Your task to perform on an android device: toggle javascript in the chrome app Image 0: 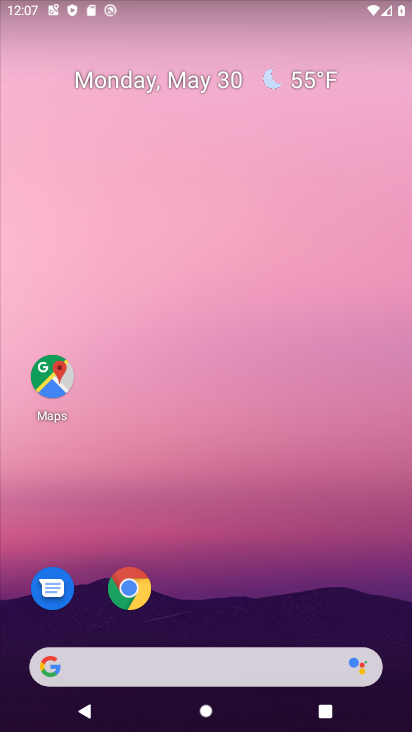
Step 0: drag from (373, 552) to (360, 130)
Your task to perform on an android device: toggle javascript in the chrome app Image 1: 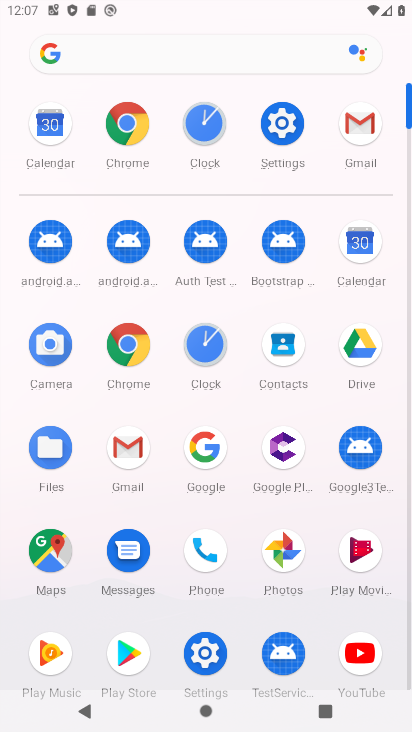
Step 1: click (116, 131)
Your task to perform on an android device: toggle javascript in the chrome app Image 2: 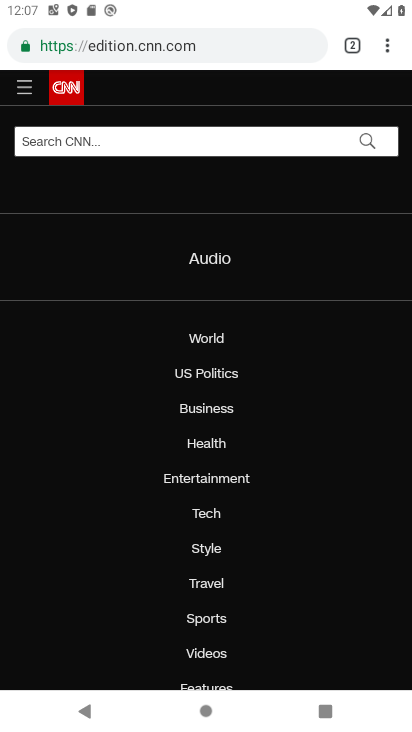
Step 2: drag from (381, 42) to (275, 543)
Your task to perform on an android device: toggle javascript in the chrome app Image 3: 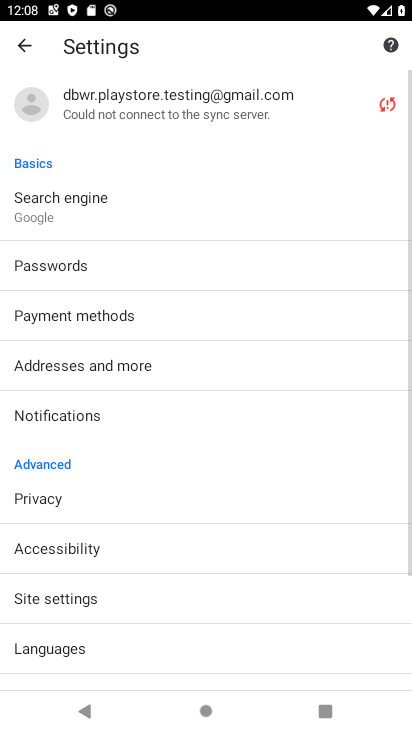
Step 3: drag from (160, 586) to (164, 256)
Your task to perform on an android device: toggle javascript in the chrome app Image 4: 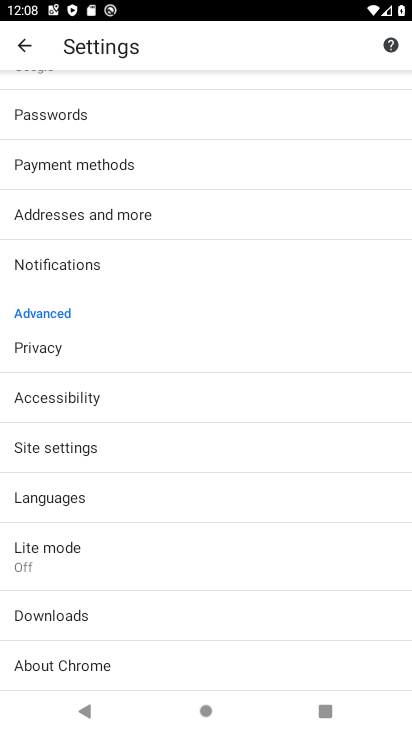
Step 4: click (60, 449)
Your task to perform on an android device: toggle javascript in the chrome app Image 5: 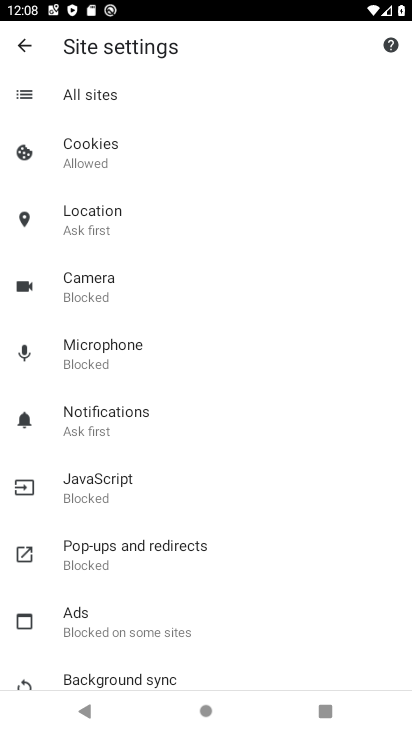
Step 5: click (121, 476)
Your task to perform on an android device: toggle javascript in the chrome app Image 6: 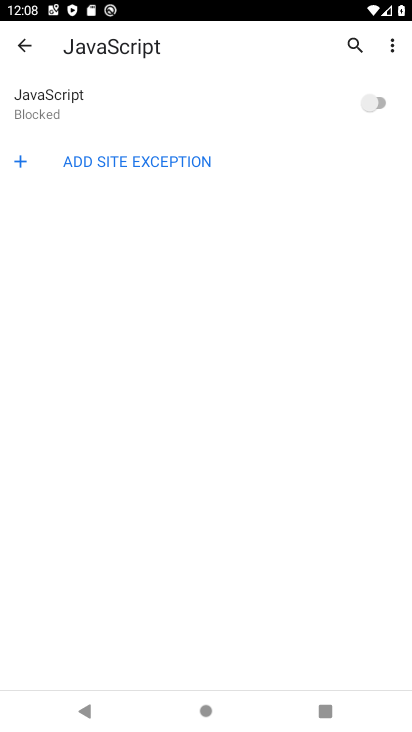
Step 6: click (379, 98)
Your task to perform on an android device: toggle javascript in the chrome app Image 7: 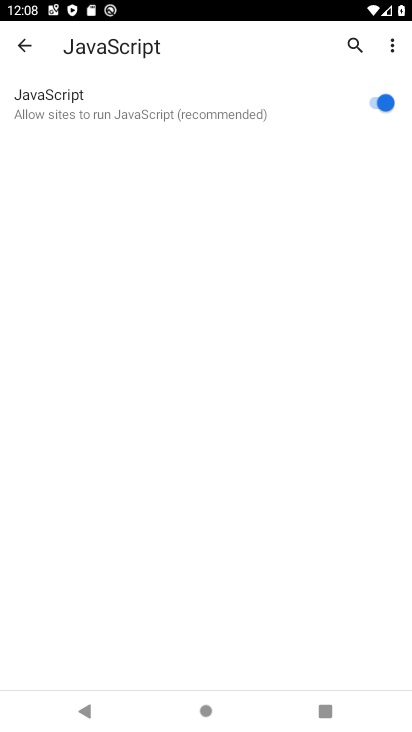
Step 7: task complete